Your task to perform on an android device: What is the recent news? Image 0: 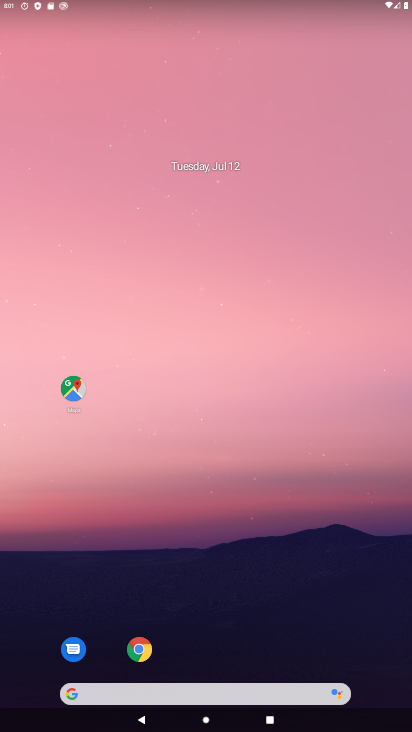
Step 0: drag from (280, 606) to (231, 130)
Your task to perform on an android device: What is the recent news? Image 1: 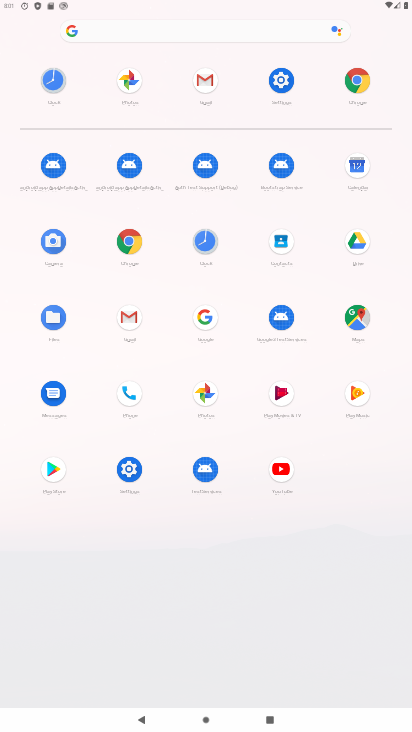
Step 1: click (128, 234)
Your task to perform on an android device: What is the recent news? Image 2: 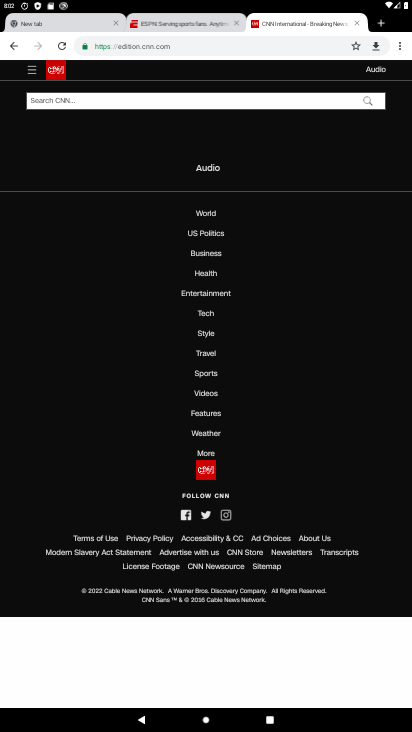
Step 2: click (187, 40)
Your task to perform on an android device: What is the recent news? Image 3: 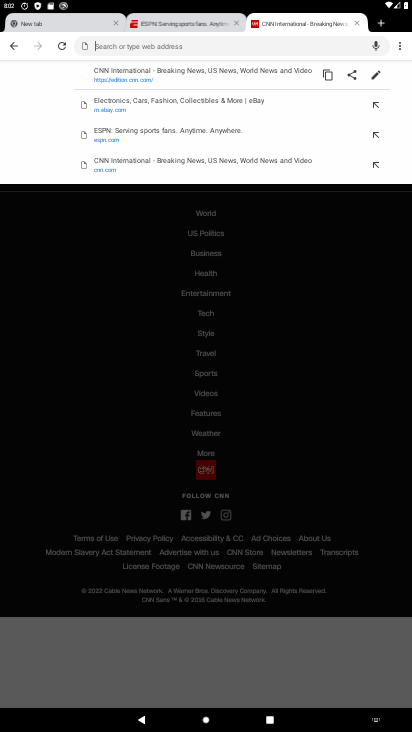
Step 3: type "news"
Your task to perform on an android device: What is the recent news? Image 4: 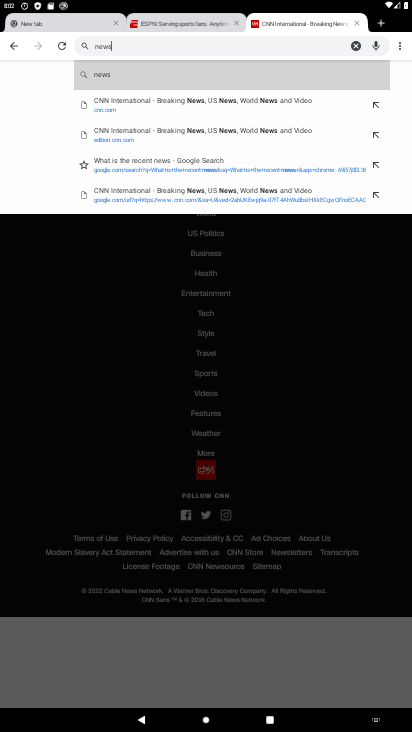
Step 4: click (106, 82)
Your task to perform on an android device: What is the recent news? Image 5: 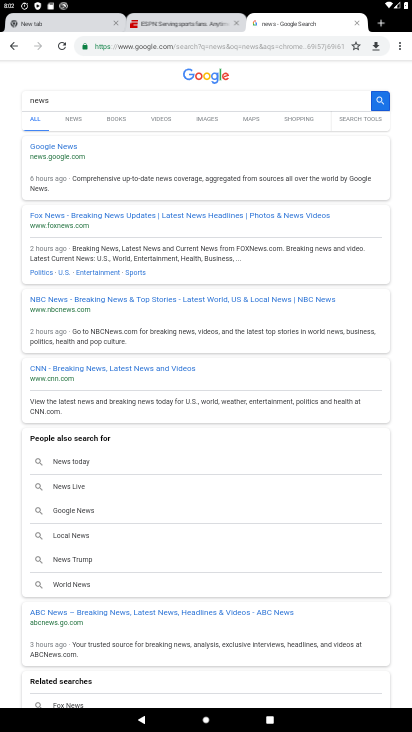
Step 5: click (67, 142)
Your task to perform on an android device: What is the recent news? Image 6: 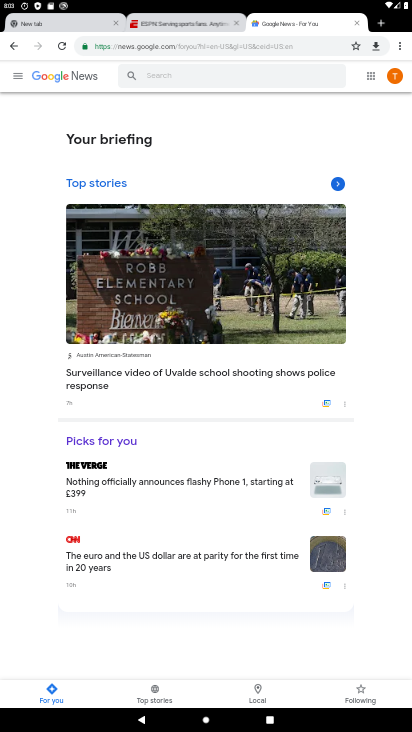
Step 6: task complete